Your task to perform on an android device: see sites visited before in the chrome app Image 0: 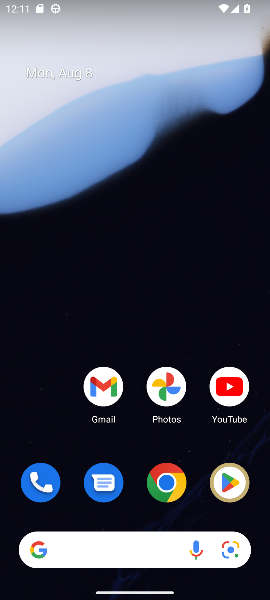
Step 0: drag from (157, 546) to (132, 305)
Your task to perform on an android device: see sites visited before in the chrome app Image 1: 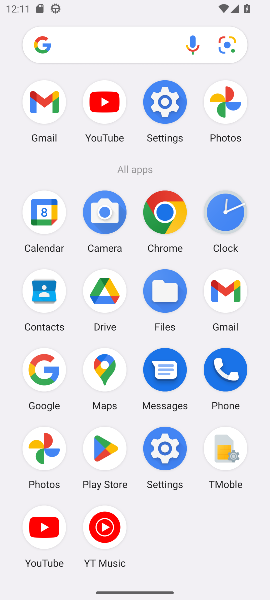
Step 1: click (164, 216)
Your task to perform on an android device: see sites visited before in the chrome app Image 2: 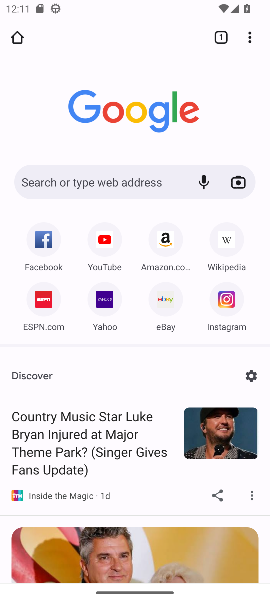
Step 2: click (245, 35)
Your task to perform on an android device: see sites visited before in the chrome app Image 3: 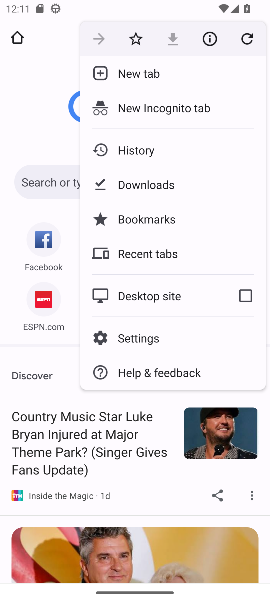
Step 3: click (139, 247)
Your task to perform on an android device: see sites visited before in the chrome app Image 4: 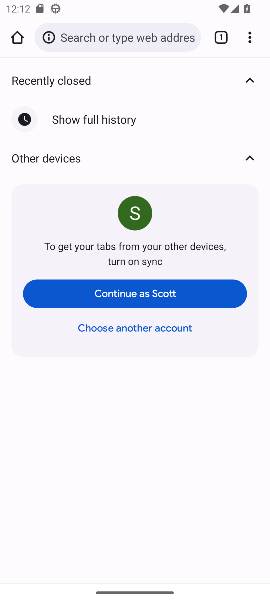
Step 4: task complete